Your task to perform on an android device: toggle pop-ups in chrome Image 0: 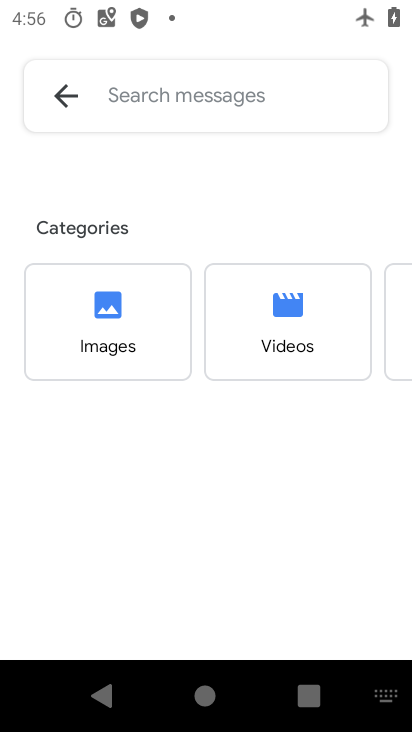
Step 0: click (253, 493)
Your task to perform on an android device: toggle pop-ups in chrome Image 1: 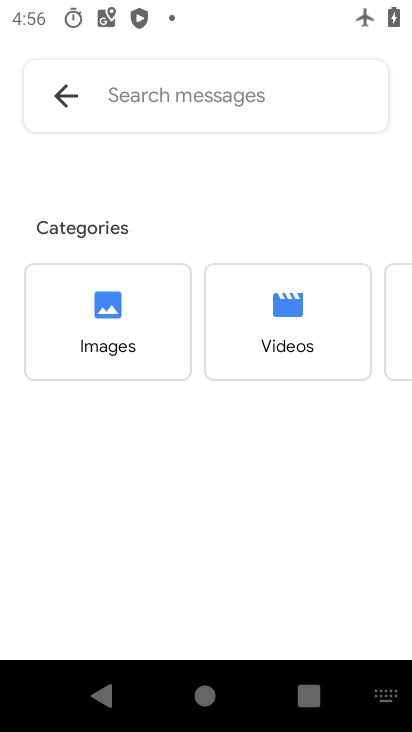
Step 1: press home button
Your task to perform on an android device: toggle pop-ups in chrome Image 2: 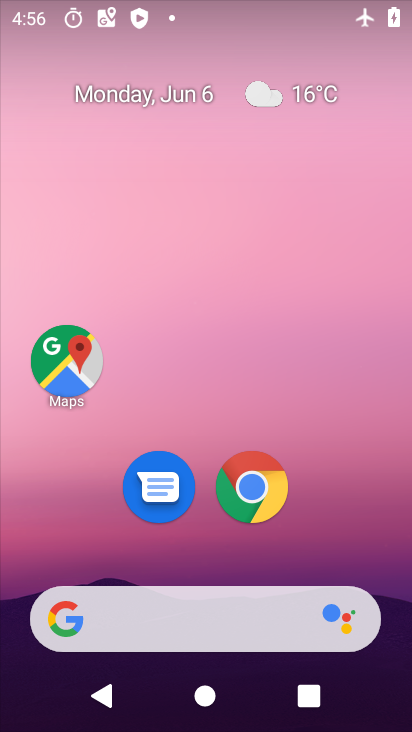
Step 2: click (255, 489)
Your task to perform on an android device: toggle pop-ups in chrome Image 3: 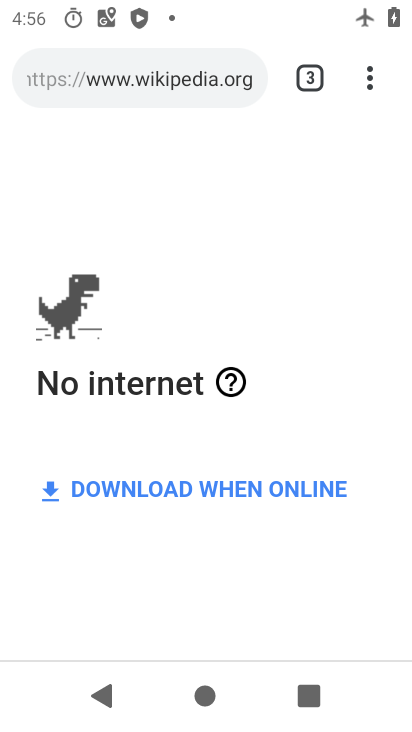
Step 3: drag from (380, 74) to (198, 552)
Your task to perform on an android device: toggle pop-ups in chrome Image 4: 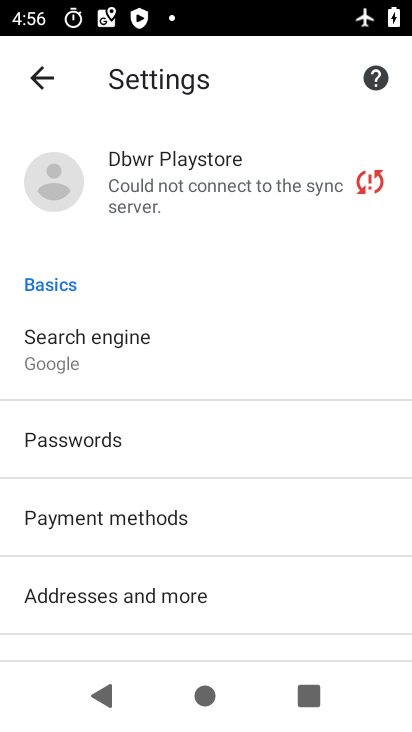
Step 4: drag from (139, 512) to (69, 31)
Your task to perform on an android device: toggle pop-ups in chrome Image 5: 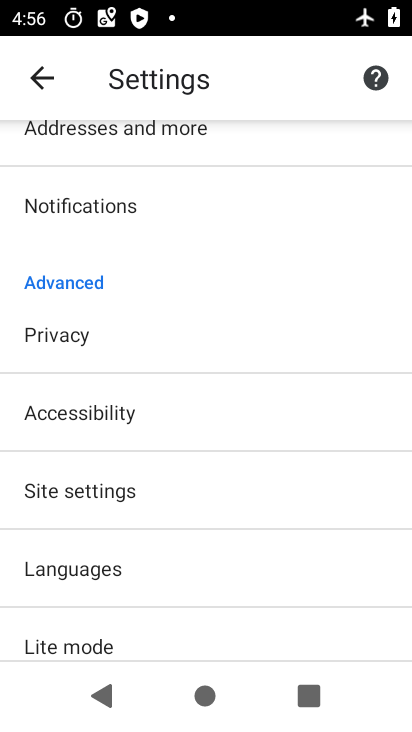
Step 5: click (112, 477)
Your task to perform on an android device: toggle pop-ups in chrome Image 6: 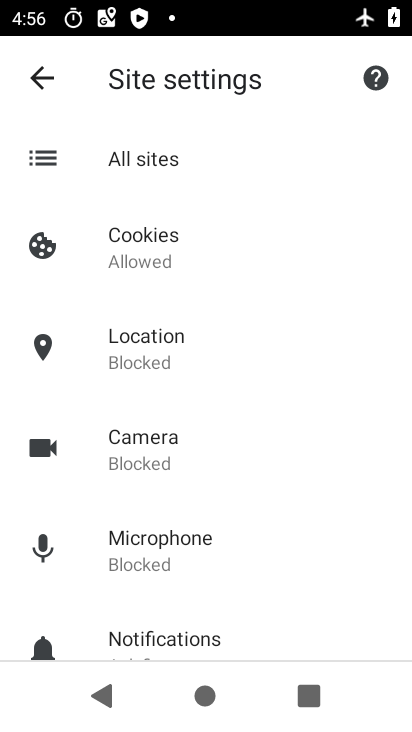
Step 6: click (241, 502)
Your task to perform on an android device: toggle pop-ups in chrome Image 7: 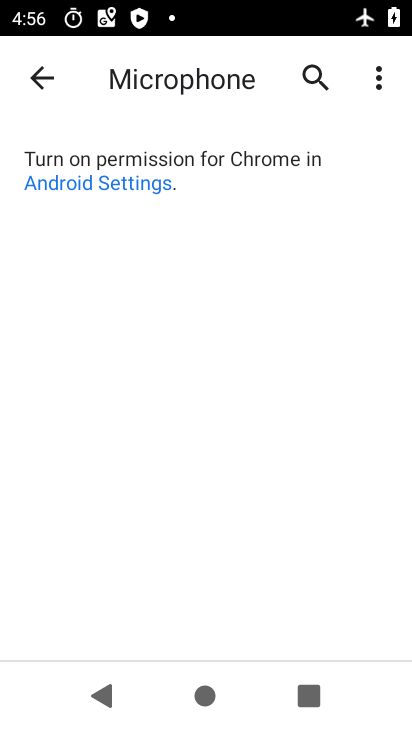
Step 7: click (39, 84)
Your task to perform on an android device: toggle pop-ups in chrome Image 8: 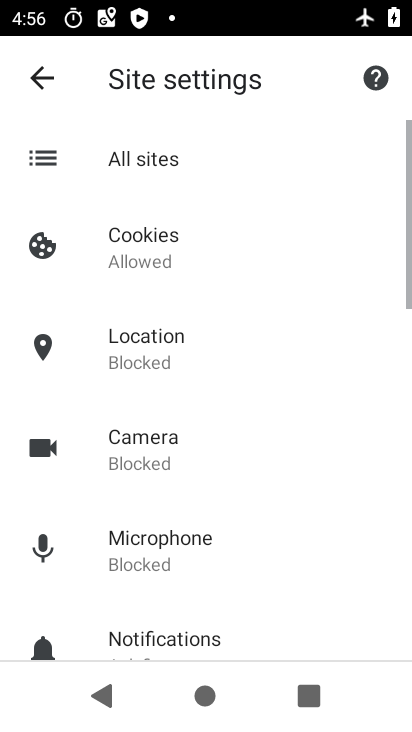
Step 8: drag from (271, 524) to (310, 161)
Your task to perform on an android device: toggle pop-ups in chrome Image 9: 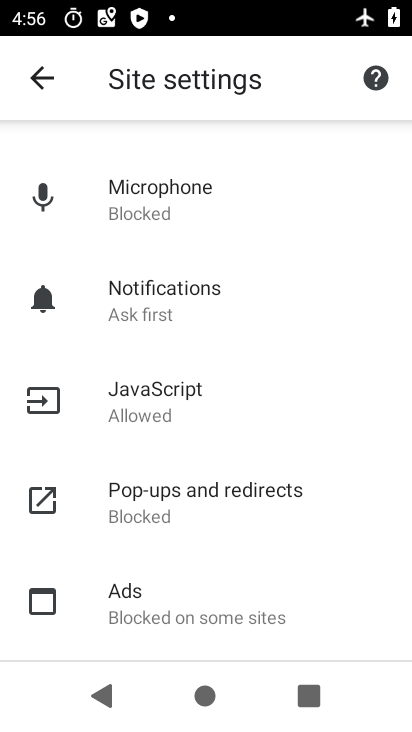
Step 9: click (204, 501)
Your task to perform on an android device: toggle pop-ups in chrome Image 10: 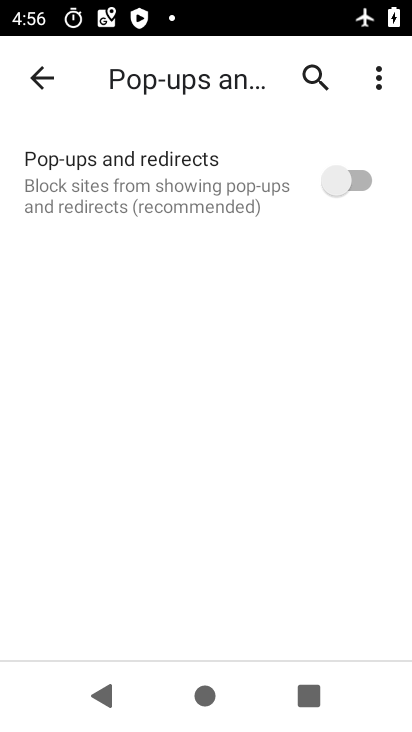
Step 10: click (341, 186)
Your task to perform on an android device: toggle pop-ups in chrome Image 11: 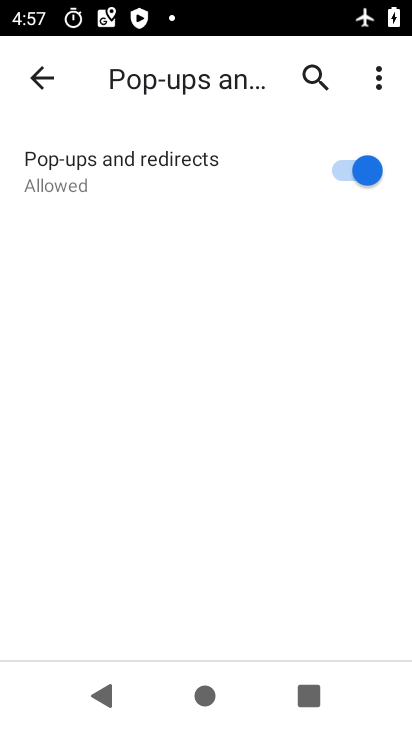
Step 11: task complete